Your task to perform on an android device: Show me popular videos on Youtube Image 0: 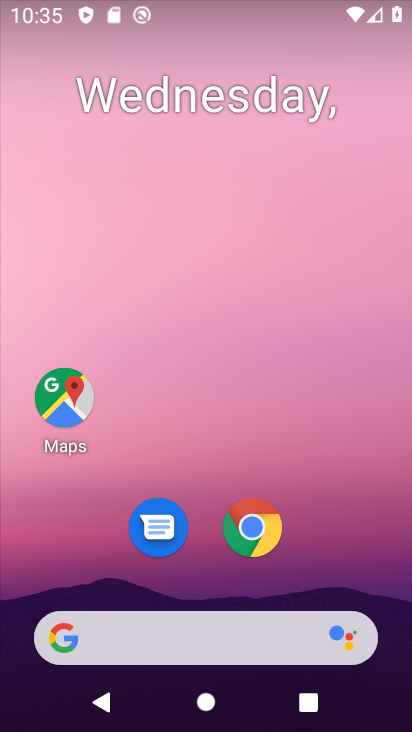
Step 0: drag from (380, 581) to (370, 38)
Your task to perform on an android device: Show me popular videos on Youtube Image 1: 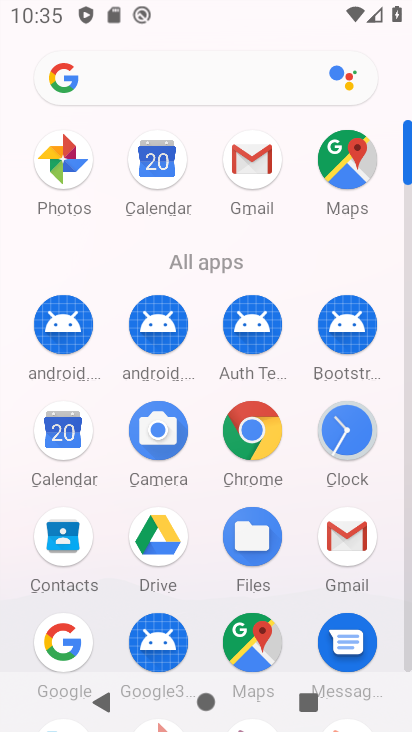
Step 1: drag from (408, 623) to (407, 585)
Your task to perform on an android device: Show me popular videos on Youtube Image 2: 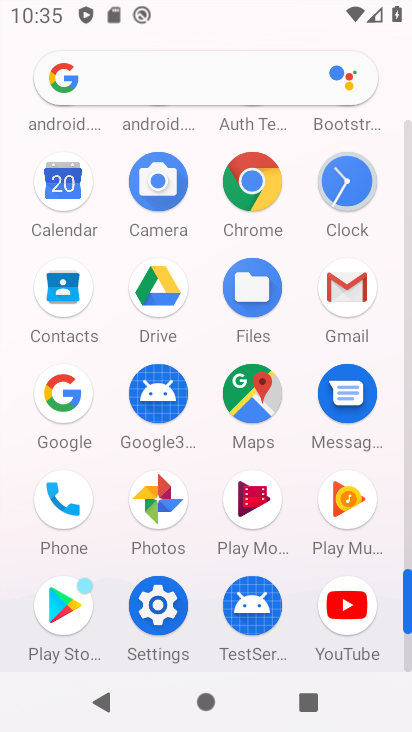
Step 2: click (342, 612)
Your task to perform on an android device: Show me popular videos on Youtube Image 3: 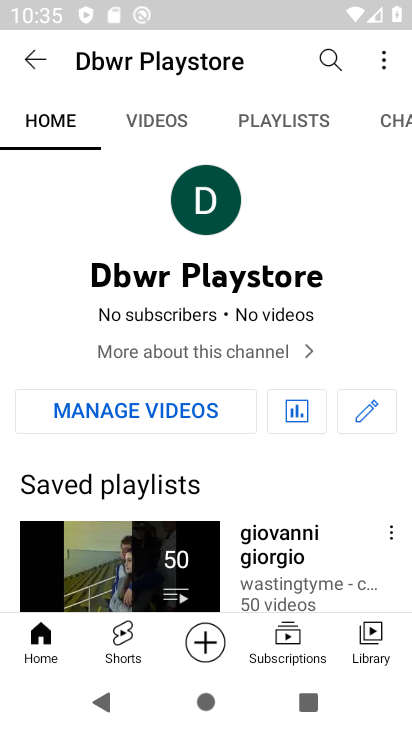
Step 3: click (149, 127)
Your task to perform on an android device: Show me popular videos on Youtube Image 4: 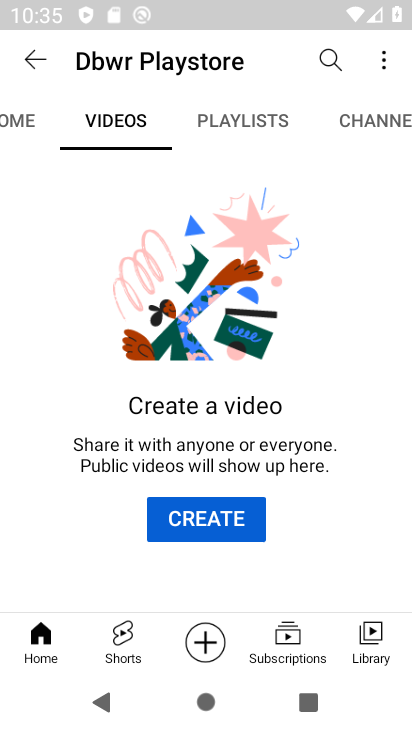
Step 4: drag from (316, 477) to (311, 266)
Your task to perform on an android device: Show me popular videos on Youtube Image 5: 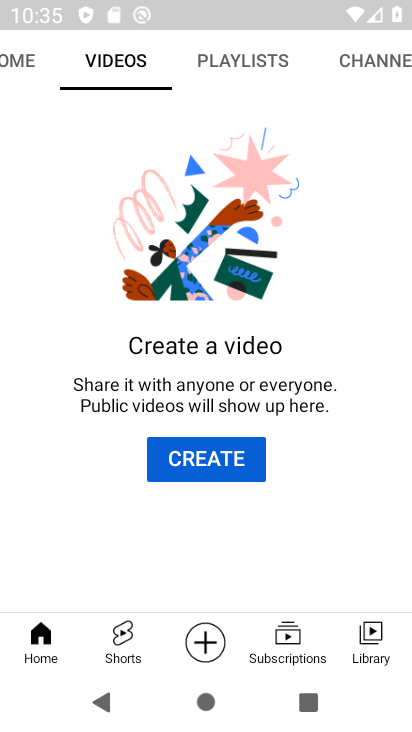
Step 5: drag from (272, 336) to (289, 520)
Your task to perform on an android device: Show me popular videos on Youtube Image 6: 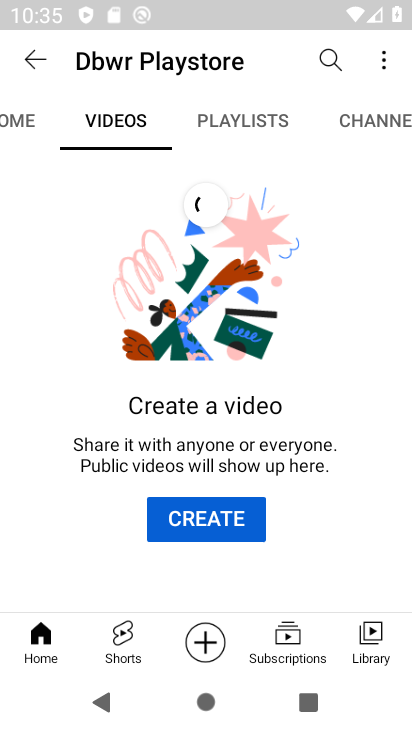
Step 6: drag from (346, 118) to (25, 128)
Your task to perform on an android device: Show me popular videos on Youtube Image 7: 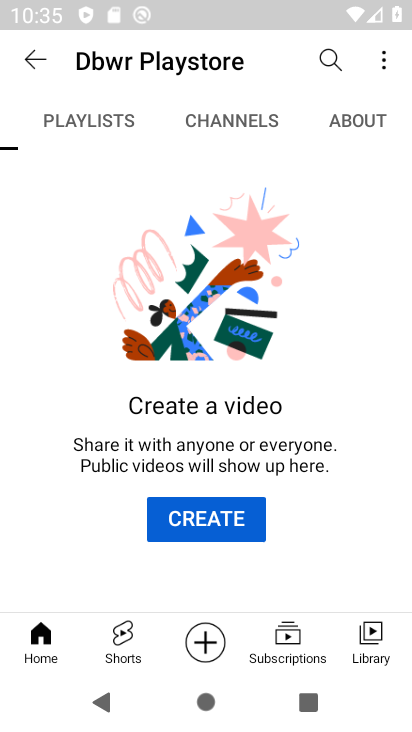
Step 7: click (28, 60)
Your task to perform on an android device: Show me popular videos on Youtube Image 8: 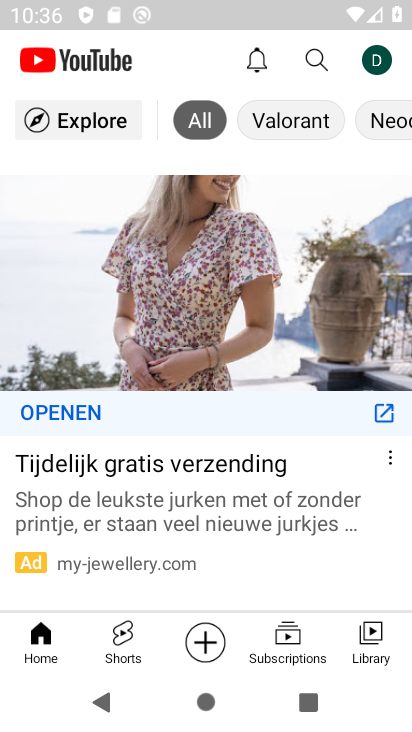
Step 8: drag from (278, 137) to (10, 153)
Your task to perform on an android device: Show me popular videos on Youtube Image 9: 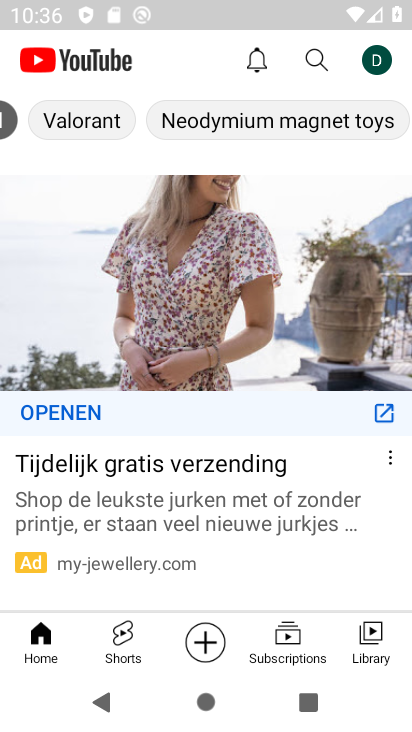
Step 9: click (363, 649)
Your task to perform on an android device: Show me popular videos on Youtube Image 10: 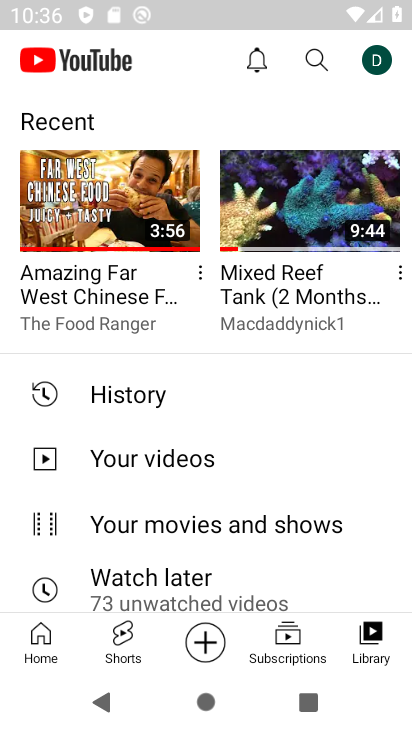
Step 10: drag from (238, 454) to (212, 269)
Your task to perform on an android device: Show me popular videos on Youtube Image 11: 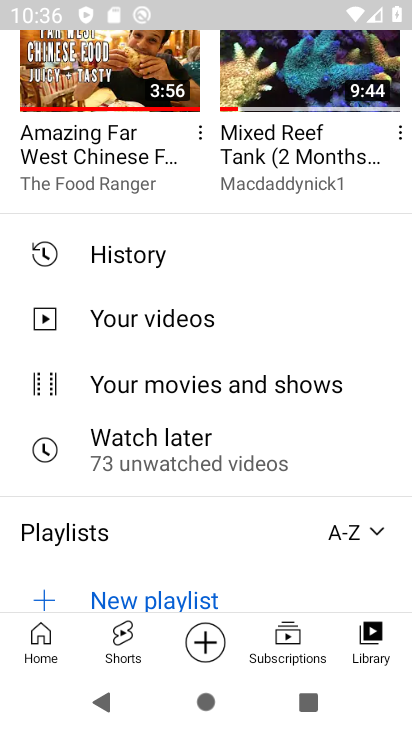
Step 11: drag from (199, 472) to (183, 193)
Your task to perform on an android device: Show me popular videos on Youtube Image 12: 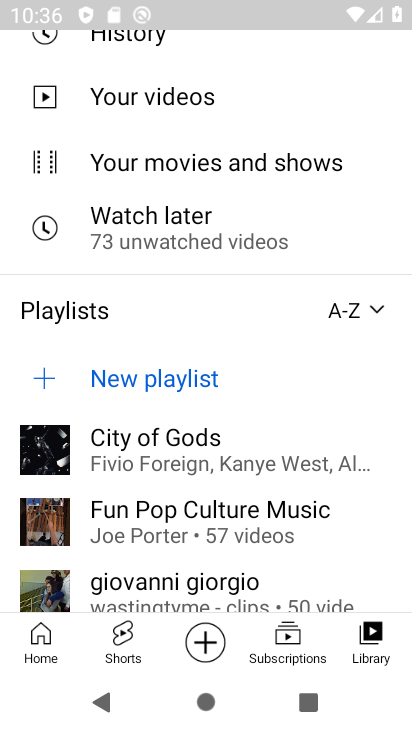
Step 12: drag from (202, 476) to (184, 255)
Your task to perform on an android device: Show me popular videos on Youtube Image 13: 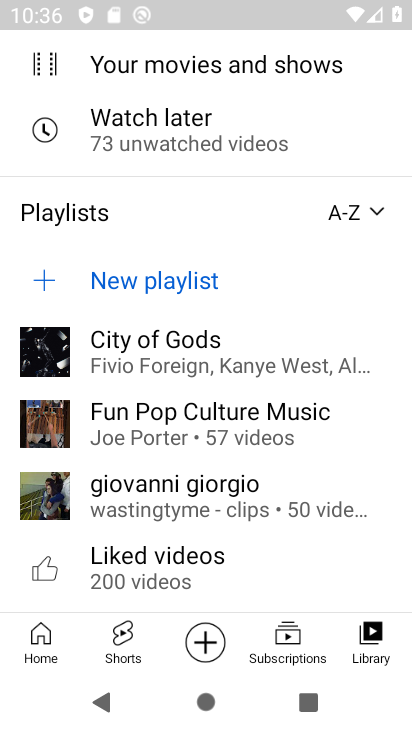
Step 13: click (46, 646)
Your task to perform on an android device: Show me popular videos on Youtube Image 14: 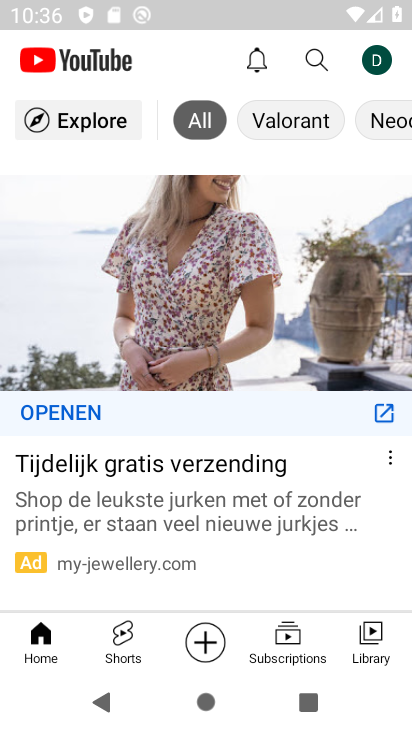
Step 14: drag from (180, 490) to (153, 229)
Your task to perform on an android device: Show me popular videos on Youtube Image 15: 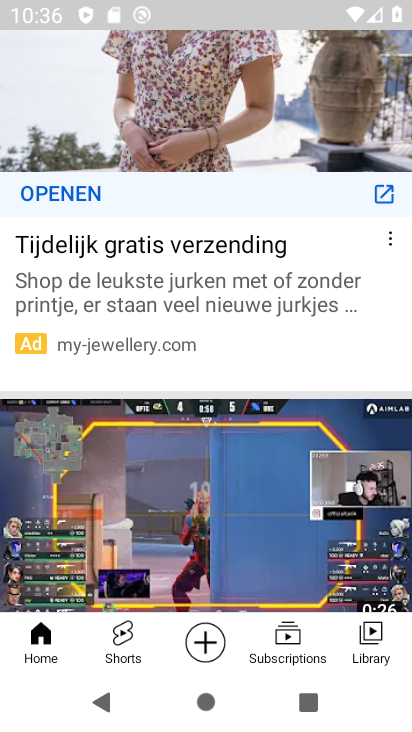
Step 15: click (145, 207)
Your task to perform on an android device: Show me popular videos on Youtube Image 16: 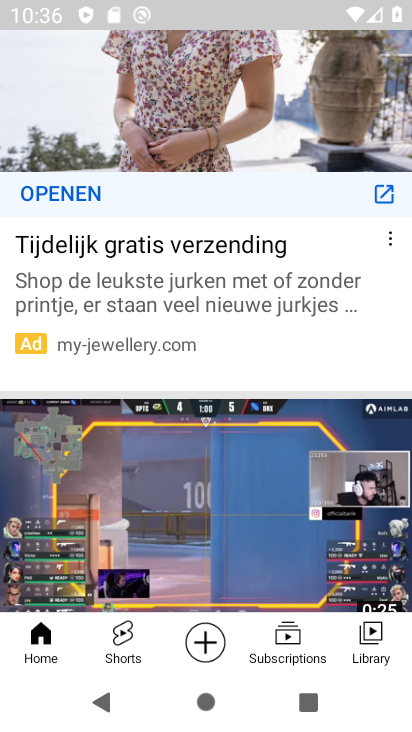
Step 16: drag from (187, 470) to (184, 182)
Your task to perform on an android device: Show me popular videos on Youtube Image 17: 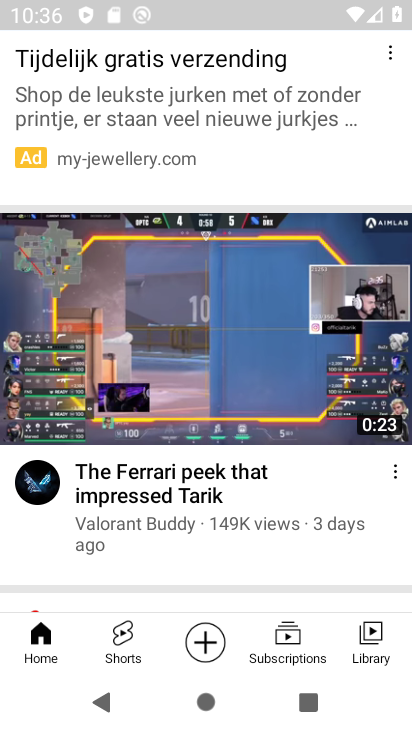
Step 17: drag from (212, 534) to (192, 182)
Your task to perform on an android device: Show me popular videos on Youtube Image 18: 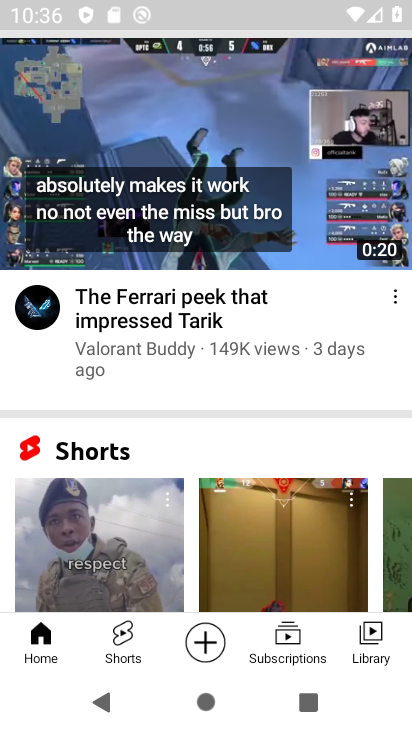
Step 18: drag from (256, 509) to (268, 148)
Your task to perform on an android device: Show me popular videos on Youtube Image 19: 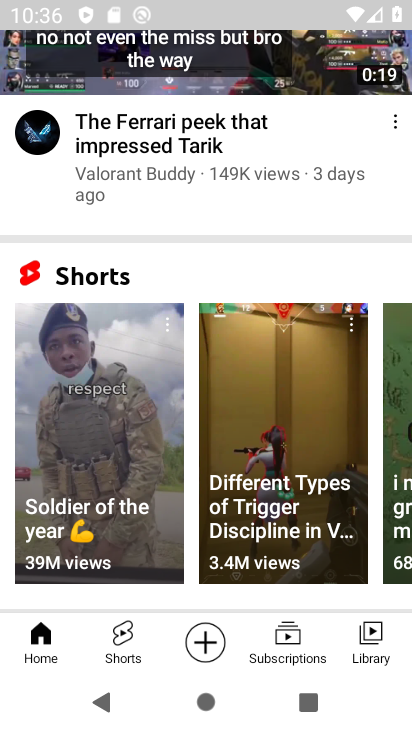
Step 19: drag from (211, 518) to (194, 139)
Your task to perform on an android device: Show me popular videos on Youtube Image 20: 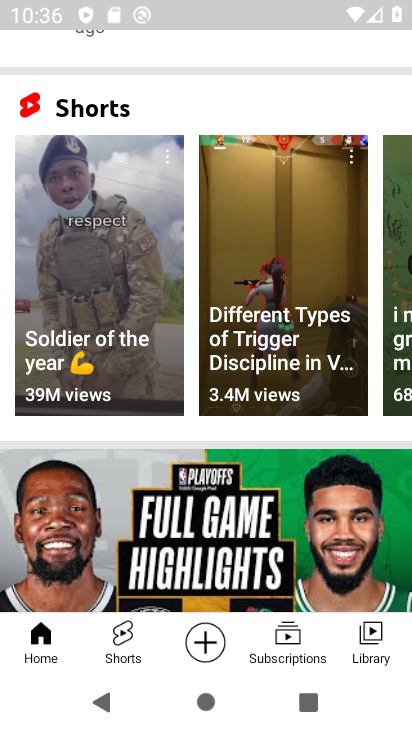
Step 20: drag from (180, 464) to (176, 151)
Your task to perform on an android device: Show me popular videos on Youtube Image 21: 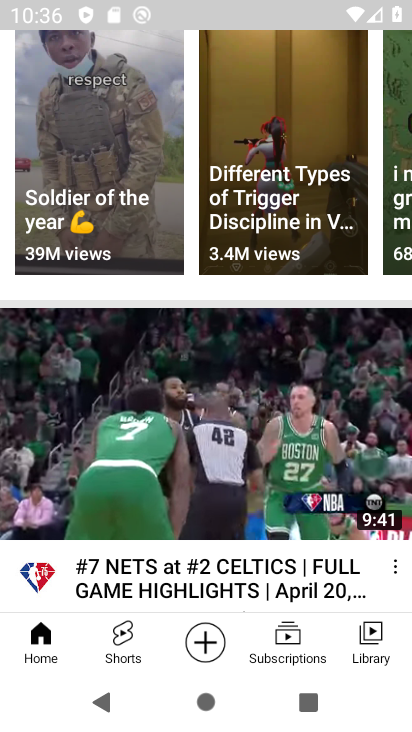
Step 21: drag from (200, 443) to (194, 230)
Your task to perform on an android device: Show me popular videos on Youtube Image 22: 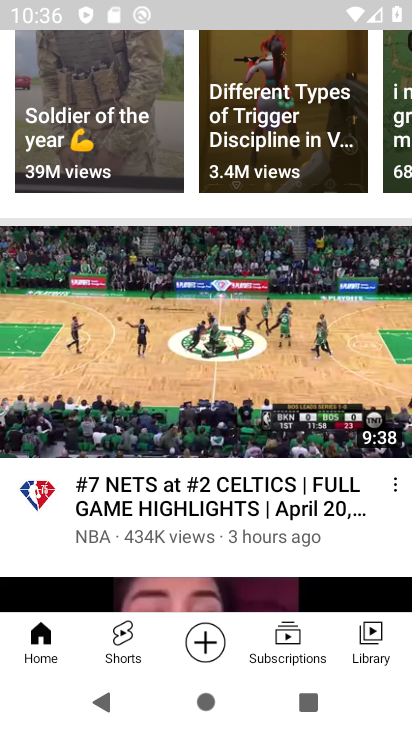
Step 22: drag from (194, 227) to (201, 566)
Your task to perform on an android device: Show me popular videos on Youtube Image 23: 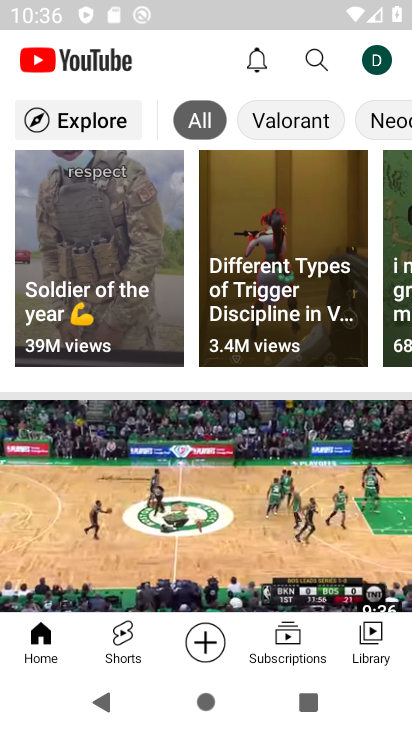
Step 23: drag from (194, 193) to (204, 470)
Your task to perform on an android device: Show me popular videos on Youtube Image 24: 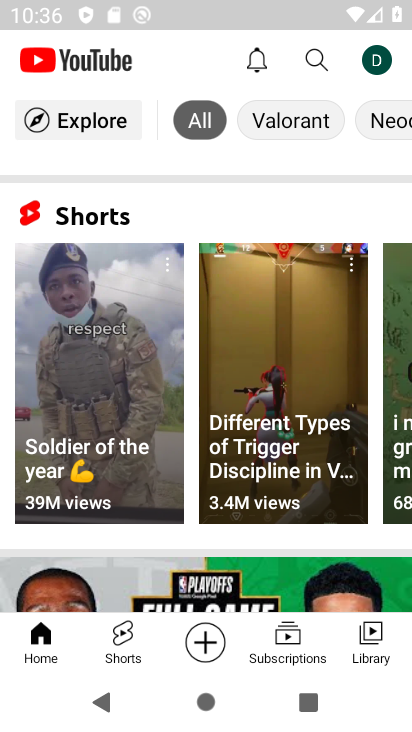
Step 24: click (374, 64)
Your task to perform on an android device: Show me popular videos on Youtube Image 25: 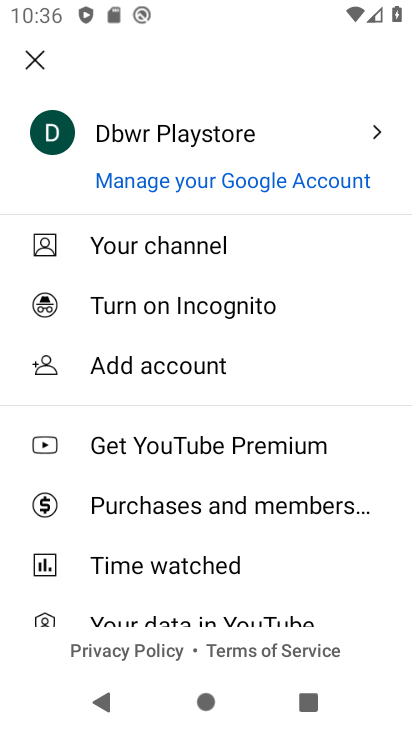
Step 25: task complete